Your task to perform on an android device: Open my contact list Image 0: 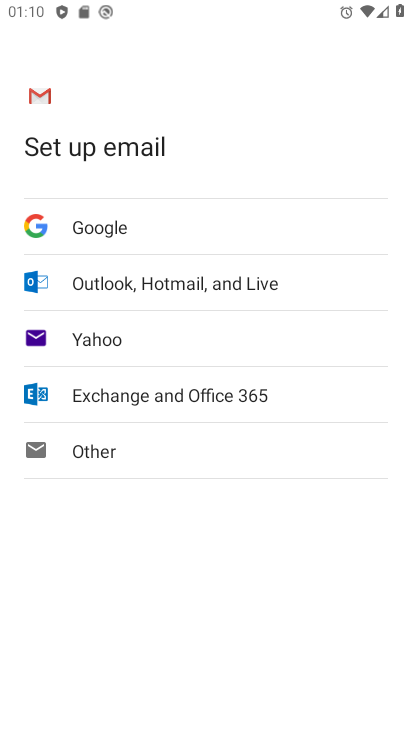
Step 0: press home button
Your task to perform on an android device: Open my contact list Image 1: 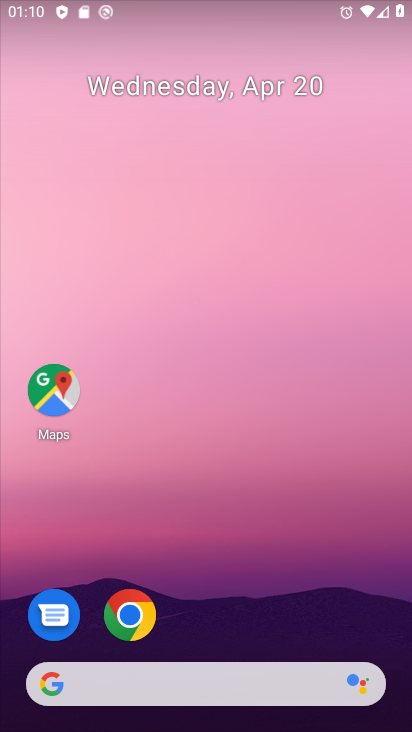
Step 1: drag from (367, 299) to (357, 79)
Your task to perform on an android device: Open my contact list Image 2: 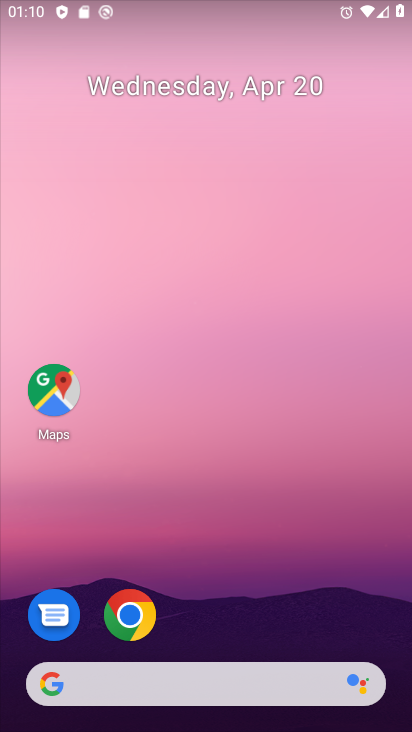
Step 2: drag from (373, 421) to (382, 72)
Your task to perform on an android device: Open my contact list Image 3: 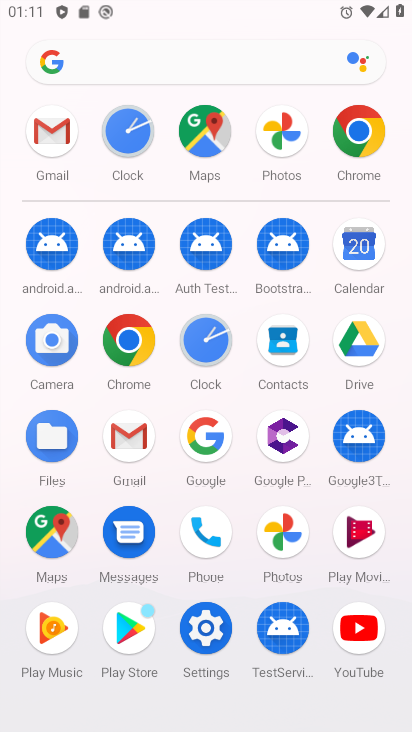
Step 3: click (272, 348)
Your task to perform on an android device: Open my contact list Image 4: 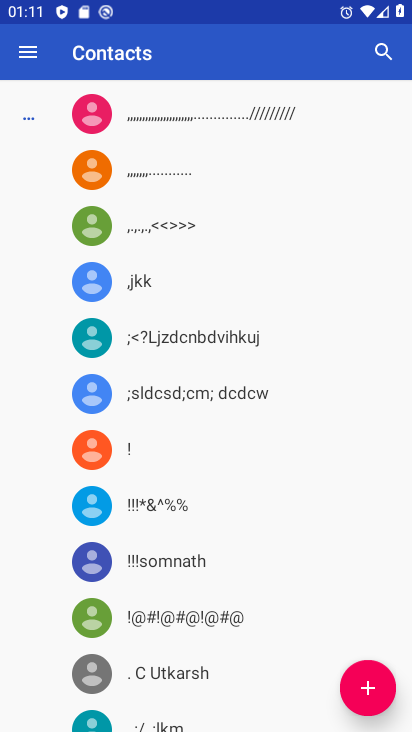
Step 4: click (352, 696)
Your task to perform on an android device: Open my contact list Image 5: 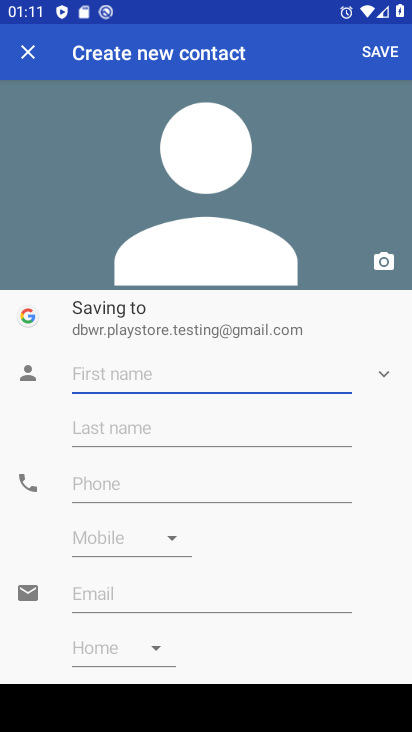
Step 5: click (127, 366)
Your task to perform on an android device: Open my contact list Image 6: 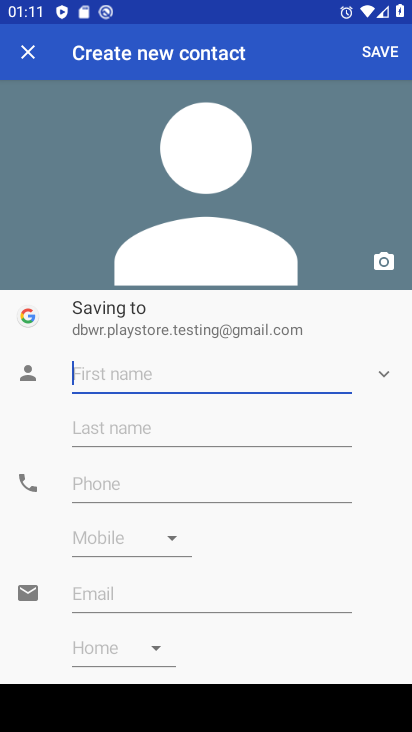
Step 6: type "sdfghj"
Your task to perform on an android device: Open my contact list Image 7: 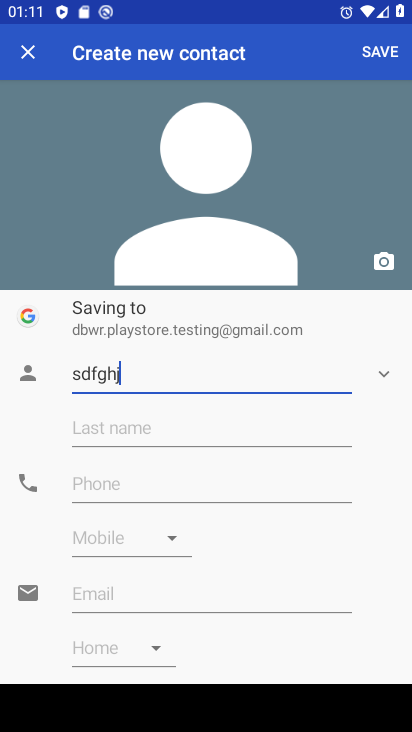
Step 7: click (177, 421)
Your task to perform on an android device: Open my contact list Image 8: 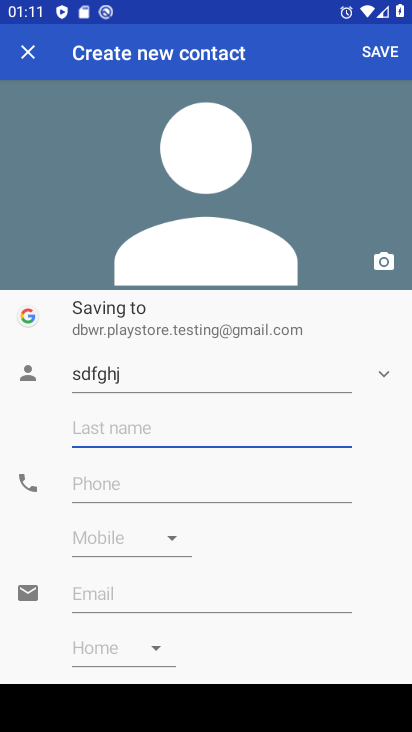
Step 8: type "yuytr"
Your task to perform on an android device: Open my contact list Image 9: 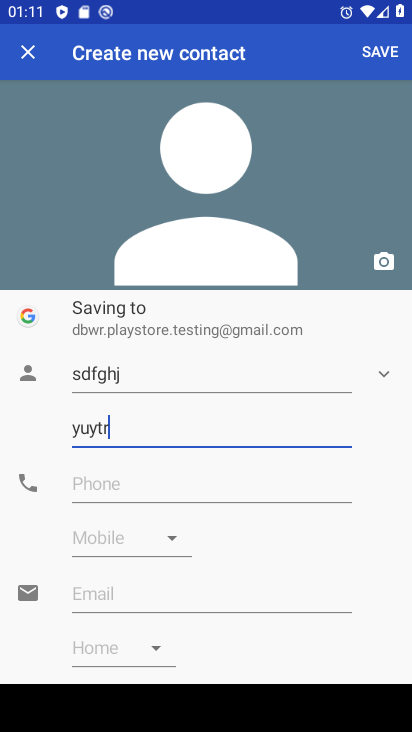
Step 9: click (212, 482)
Your task to perform on an android device: Open my contact list Image 10: 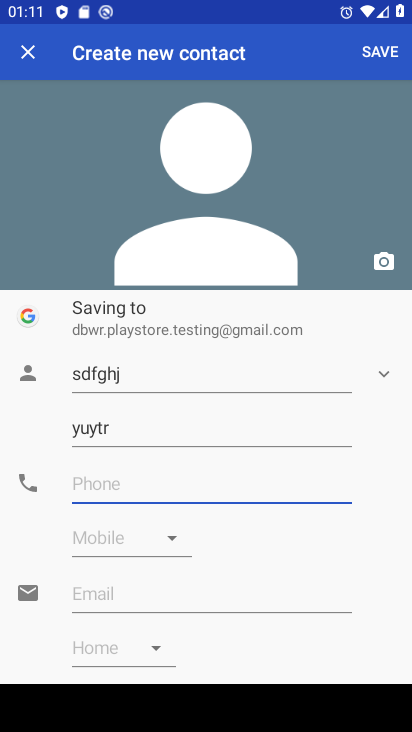
Step 10: type "987346214677"
Your task to perform on an android device: Open my contact list Image 11: 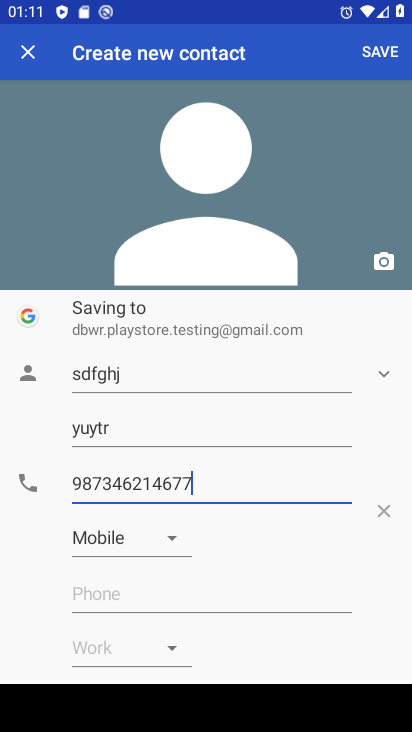
Step 11: click (390, 48)
Your task to perform on an android device: Open my contact list Image 12: 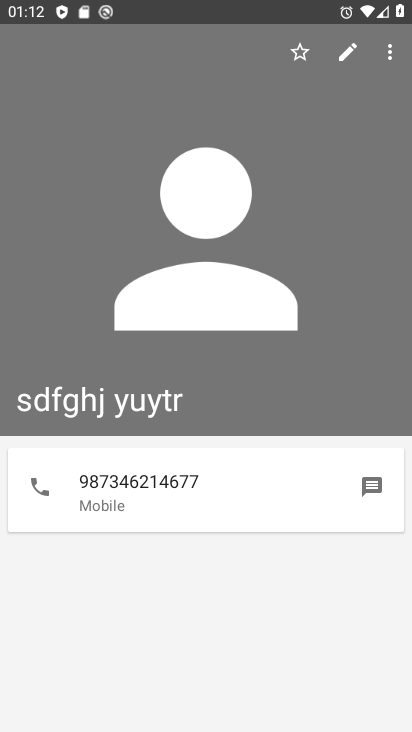
Step 12: task complete